Your task to perform on an android device: toggle javascript in the chrome app Image 0: 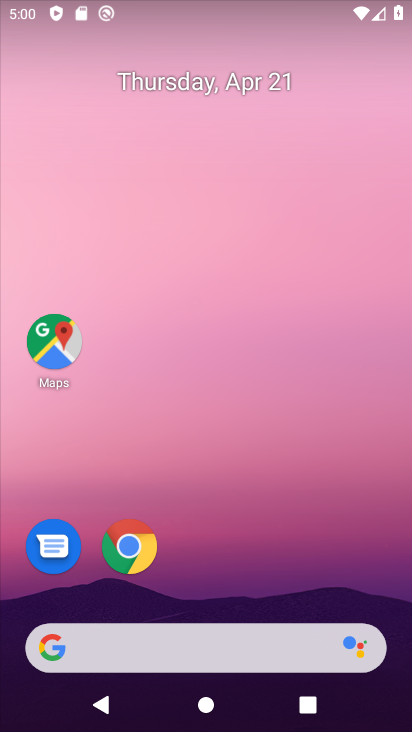
Step 0: drag from (270, 581) to (273, 96)
Your task to perform on an android device: toggle javascript in the chrome app Image 1: 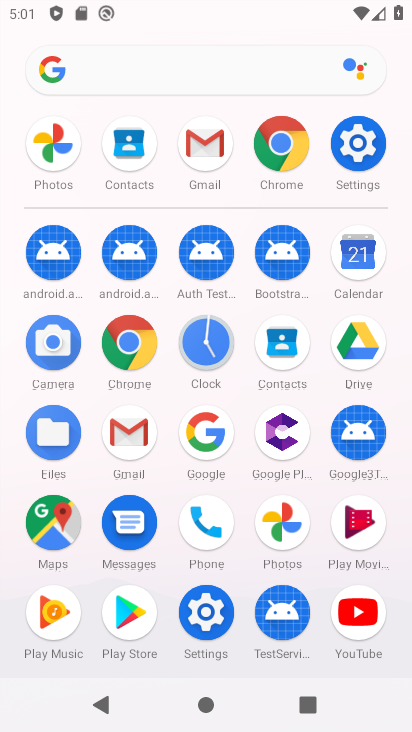
Step 1: click (281, 152)
Your task to perform on an android device: toggle javascript in the chrome app Image 2: 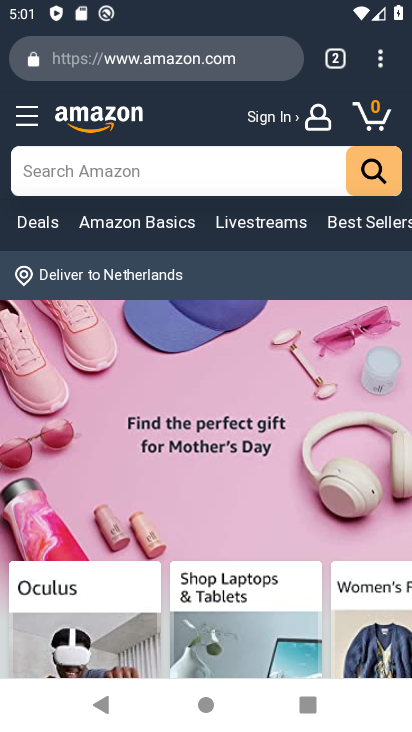
Step 2: click (383, 55)
Your task to perform on an android device: toggle javascript in the chrome app Image 3: 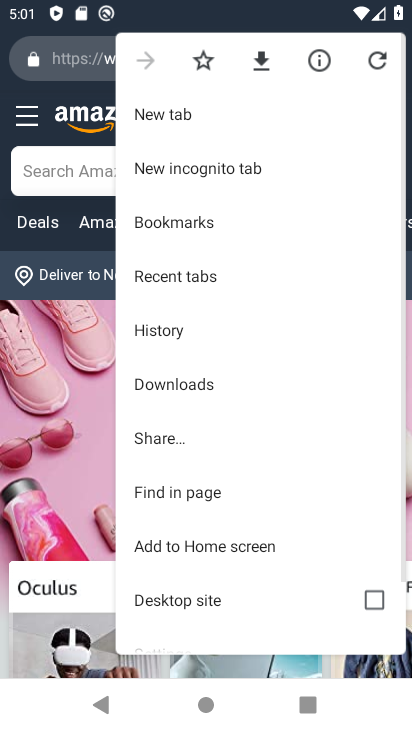
Step 3: drag from (224, 560) to (241, 166)
Your task to perform on an android device: toggle javascript in the chrome app Image 4: 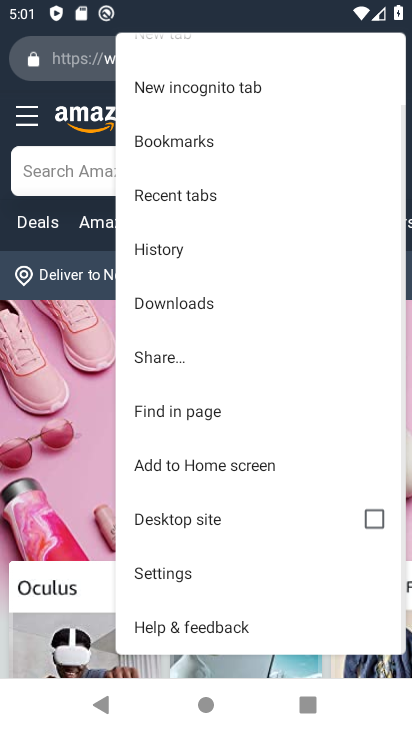
Step 4: click (181, 567)
Your task to perform on an android device: toggle javascript in the chrome app Image 5: 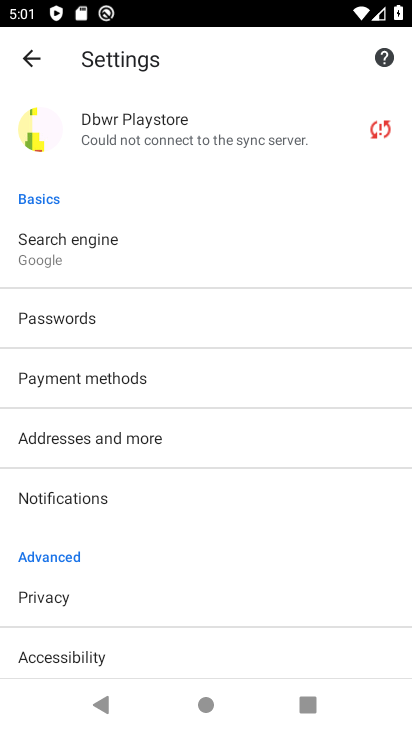
Step 5: drag from (204, 612) to (229, 218)
Your task to perform on an android device: toggle javascript in the chrome app Image 6: 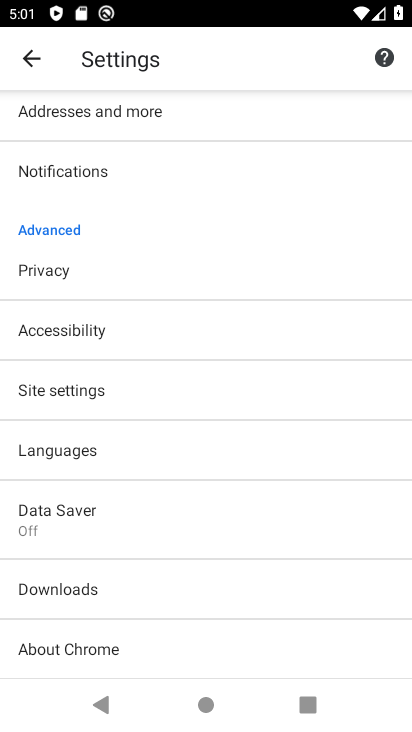
Step 6: click (87, 384)
Your task to perform on an android device: toggle javascript in the chrome app Image 7: 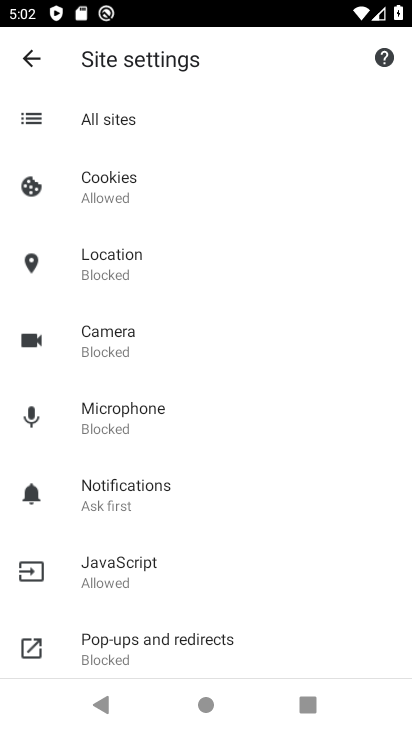
Step 7: click (133, 565)
Your task to perform on an android device: toggle javascript in the chrome app Image 8: 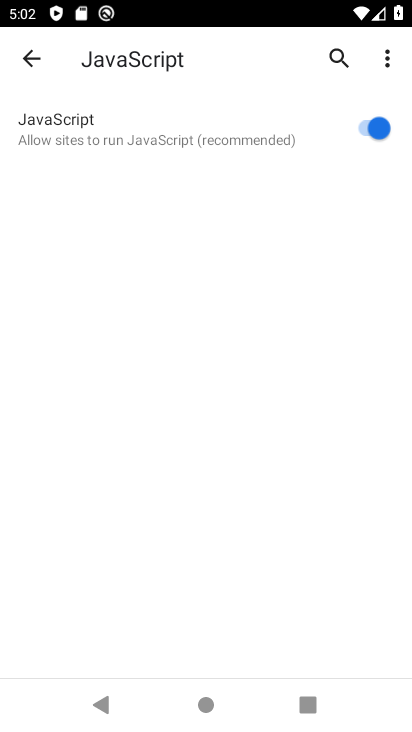
Step 8: click (366, 123)
Your task to perform on an android device: toggle javascript in the chrome app Image 9: 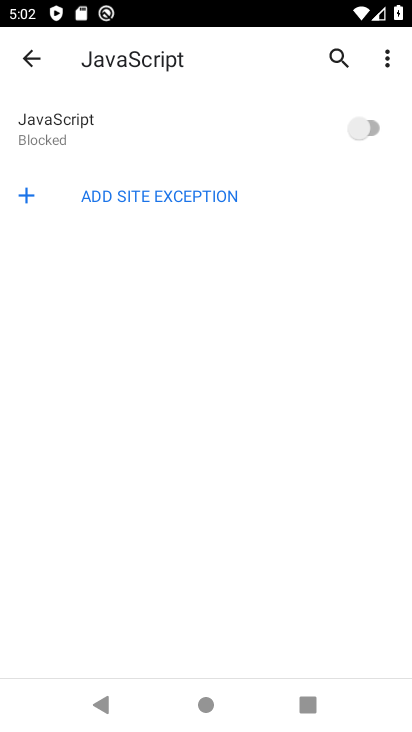
Step 9: task complete